Your task to perform on an android device: change notifications settings Image 0: 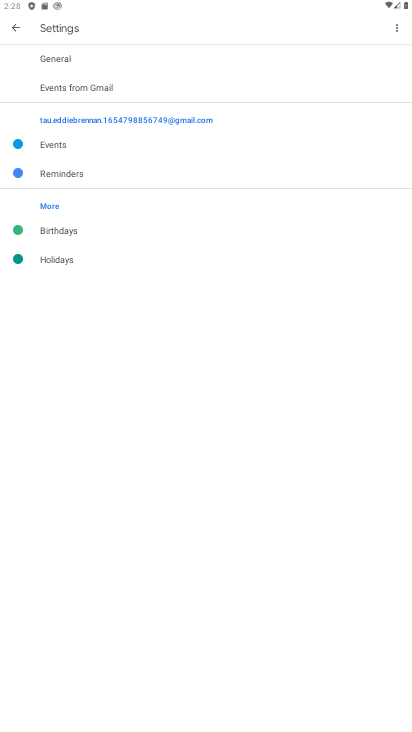
Step 0: press home button
Your task to perform on an android device: change notifications settings Image 1: 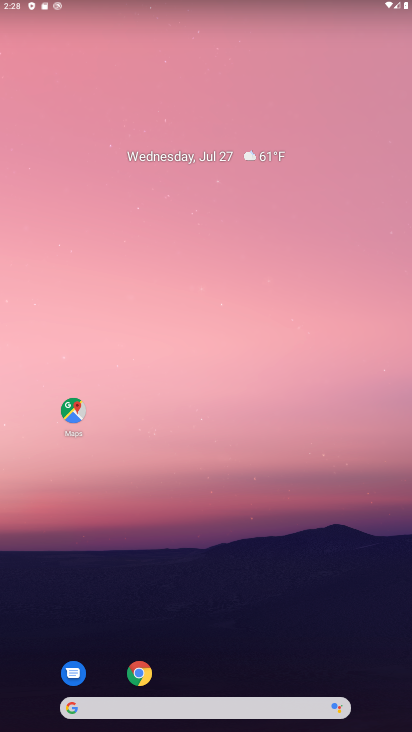
Step 1: drag from (14, 699) to (281, 19)
Your task to perform on an android device: change notifications settings Image 2: 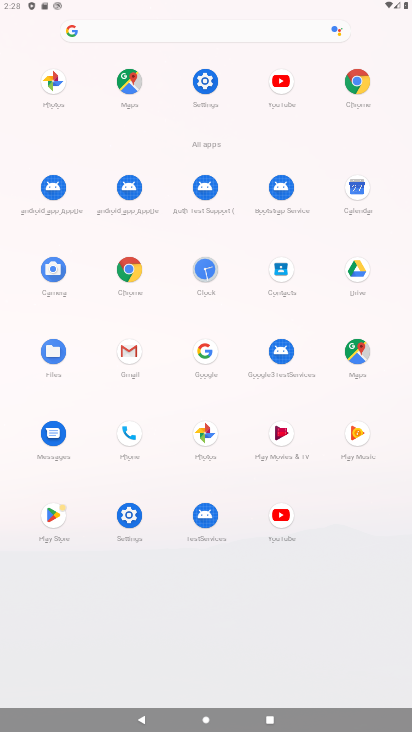
Step 2: click (121, 512)
Your task to perform on an android device: change notifications settings Image 3: 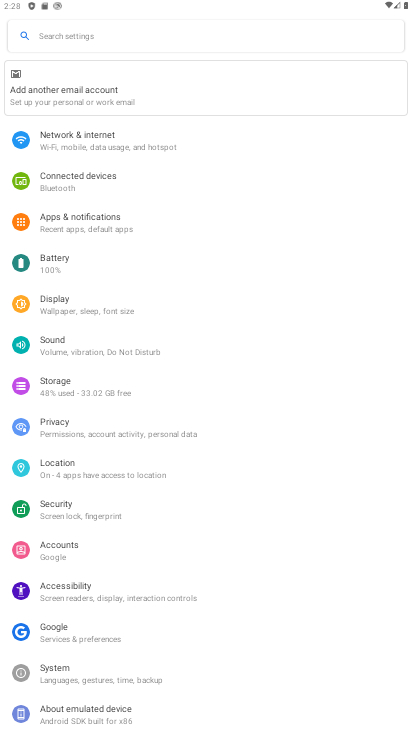
Step 3: click (95, 224)
Your task to perform on an android device: change notifications settings Image 4: 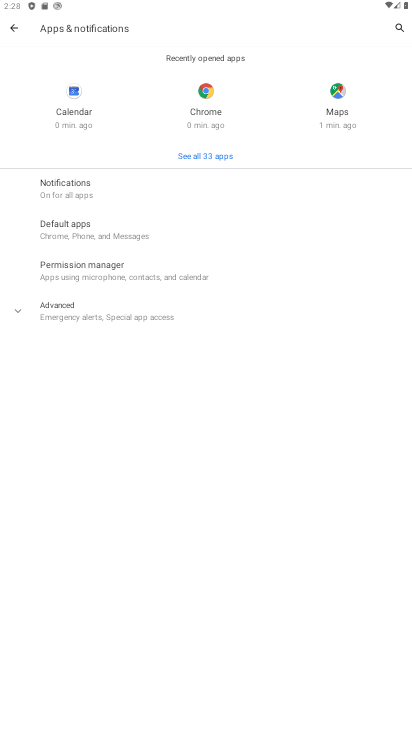
Step 4: task complete